Your task to perform on an android device: Go to calendar. Show me events next week Image 0: 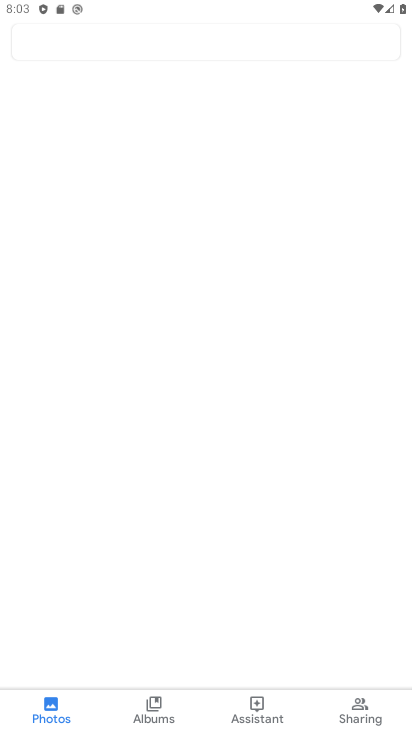
Step 0: drag from (264, 612) to (259, 261)
Your task to perform on an android device: Go to calendar. Show me events next week Image 1: 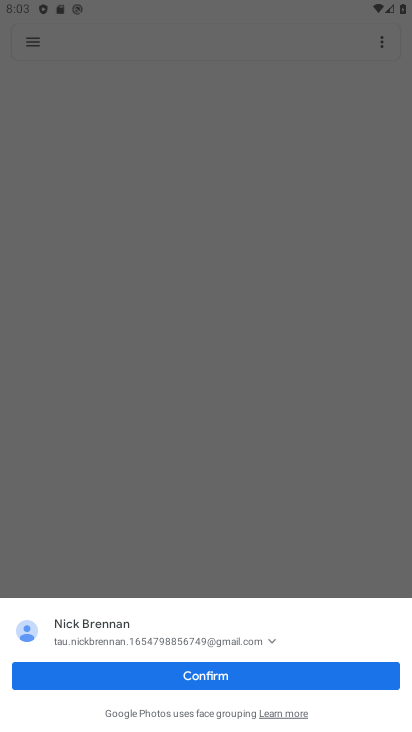
Step 1: press home button
Your task to perform on an android device: Go to calendar. Show me events next week Image 2: 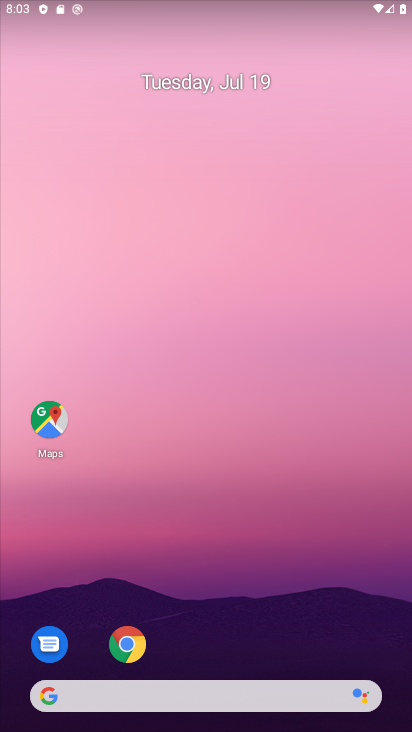
Step 2: drag from (277, 595) to (280, 33)
Your task to perform on an android device: Go to calendar. Show me events next week Image 3: 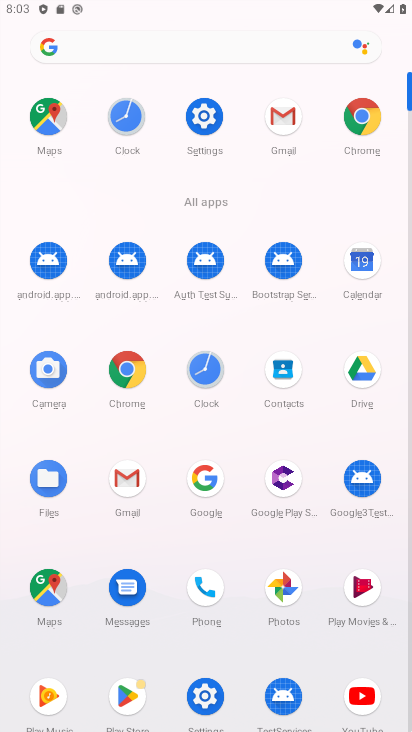
Step 3: click (353, 270)
Your task to perform on an android device: Go to calendar. Show me events next week Image 4: 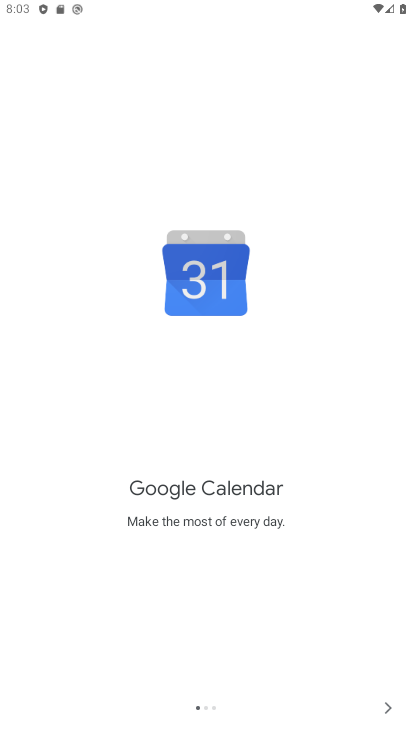
Step 4: click (378, 713)
Your task to perform on an android device: Go to calendar. Show me events next week Image 5: 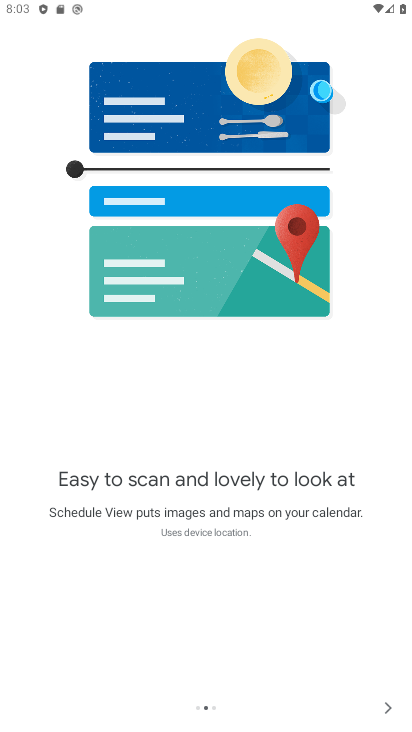
Step 5: click (378, 713)
Your task to perform on an android device: Go to calendar. Show me events next week Image 6: 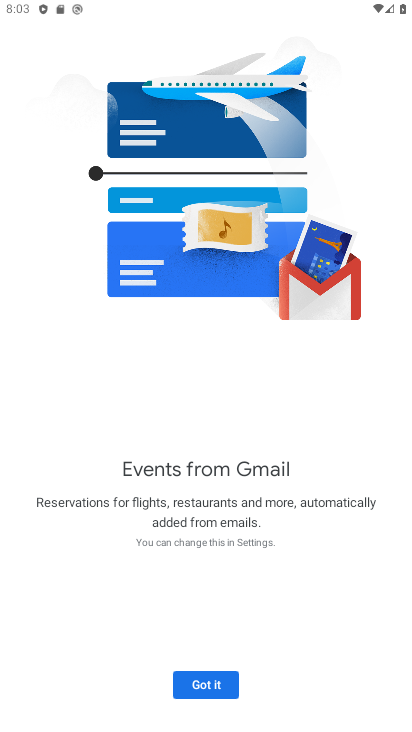
Step 6: click (378, 713)
Your task to perform on an android device: Go to calendar. Show me events next week Image 7: 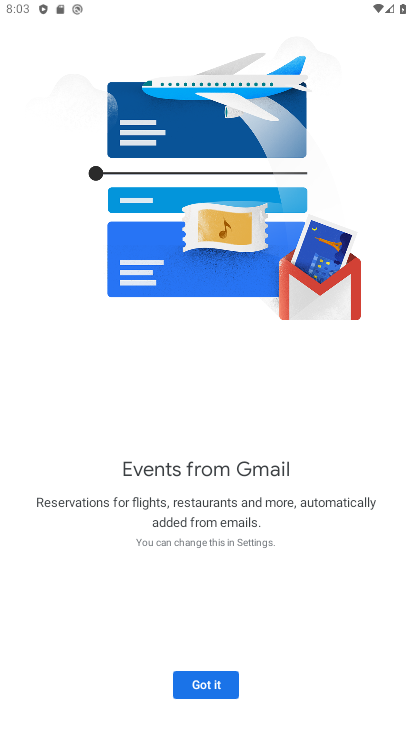
Step 7: click (175, 678)
Your task to perform on an android device: Go to calendar. Show me events next week Image 8: 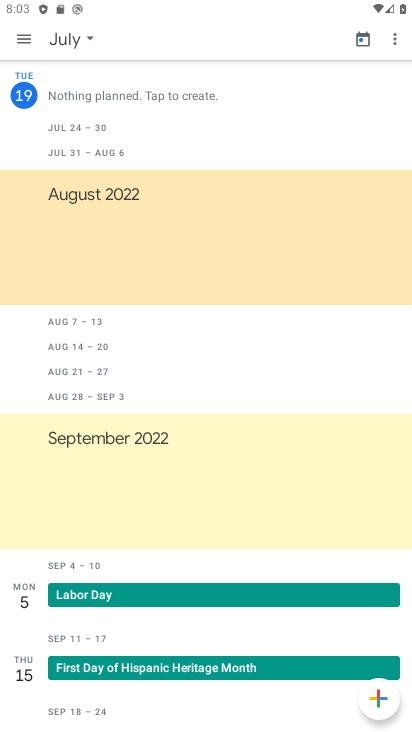
Step 8: click (84, 42)
Your task to perform on an android device: Go to calendar. Show me events next week Image 9: 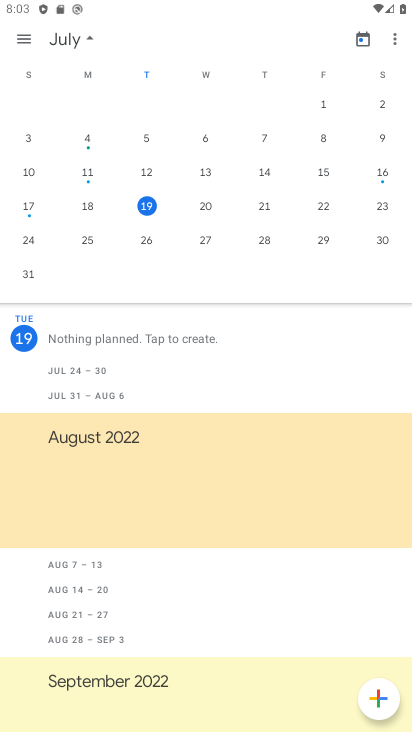
Step 9: click (39, 238)
Your task to perform on an android device: Go to calendar. Show me events next week Image 10: 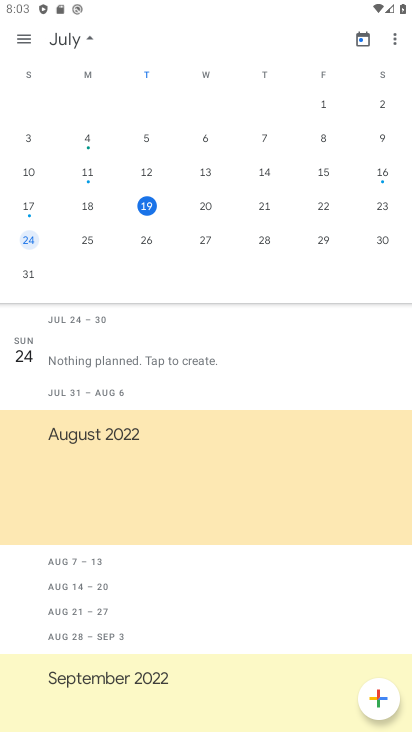
Step 10: click (83, 236)
Your task to perform on an android device: Go to calendar. Show me events next week Image 11: 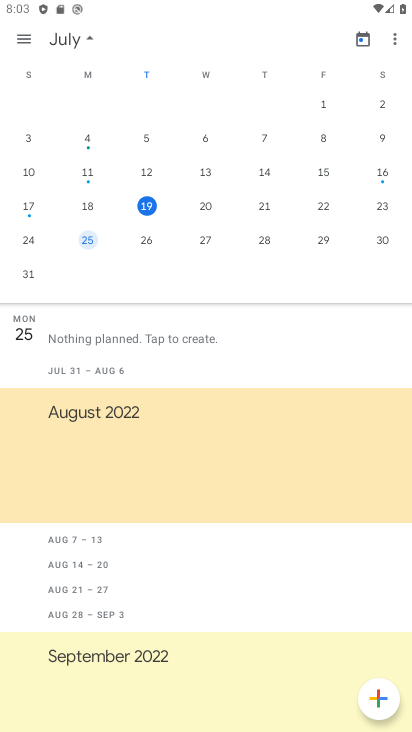
Step 11: click (129, 238)
Your task to perform on an android device: Go to calendar. Show me events next week Image 12: 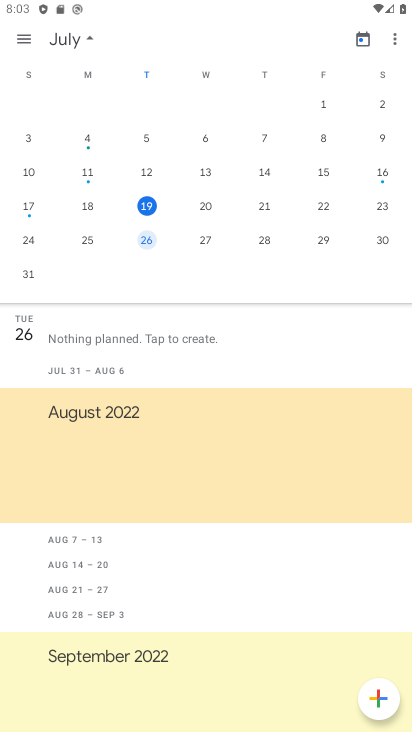
Step 12: click (183, 245)
Your task to perform on an android device: Go to calendar. Show me events next week Image 13: 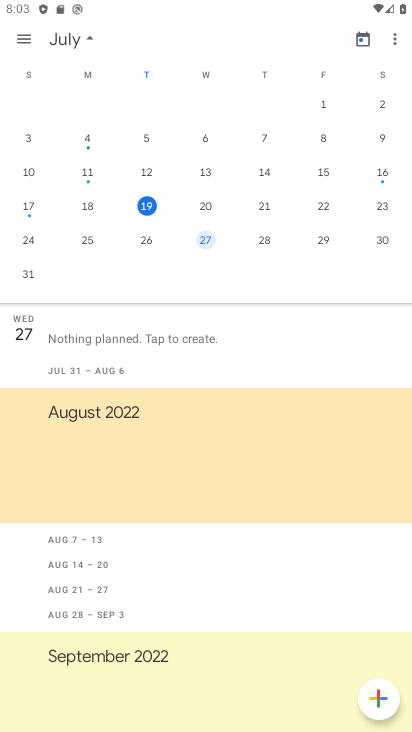
Step 13: click (277, 231)
Your task to perform on an android device: Go to calendar. Show me events next week Image 14: 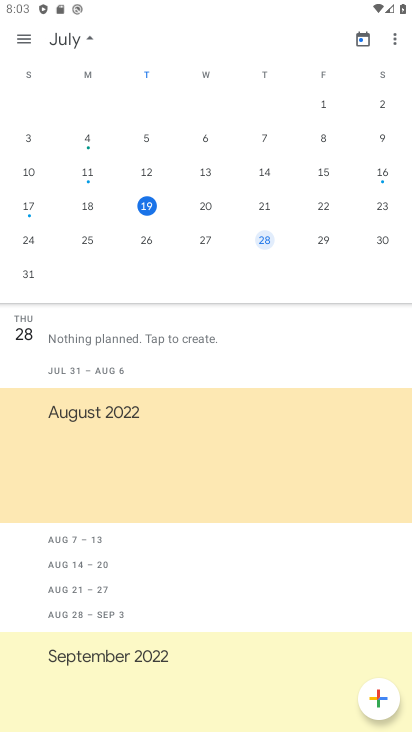
Step 14: click (325, 240)
Your task to perform on an android device: Go to calendar. Show me events next week Image 15: 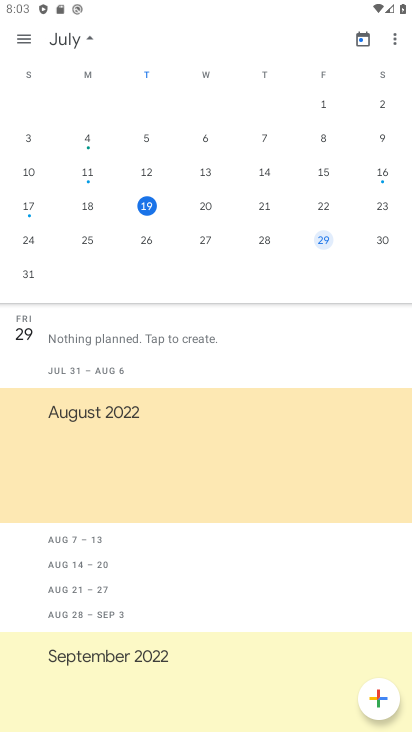
Step 15: click (382, 235)
Your task to perform on an android device: Go to calendar. Show me events next week Image 16: 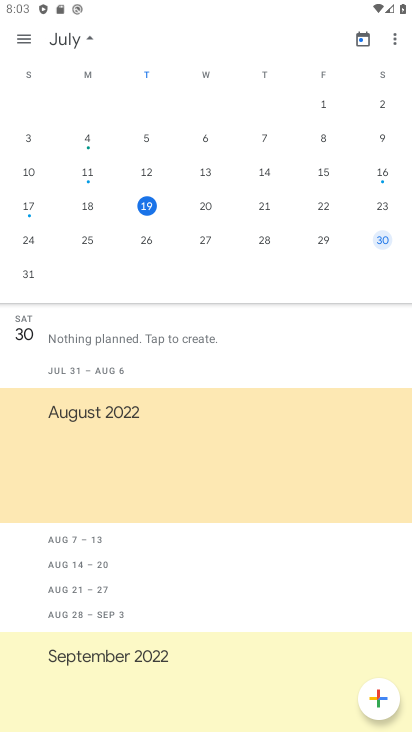
Step 16: task complete